Your task to perform on an android device: toggle airplane mode Image 0: 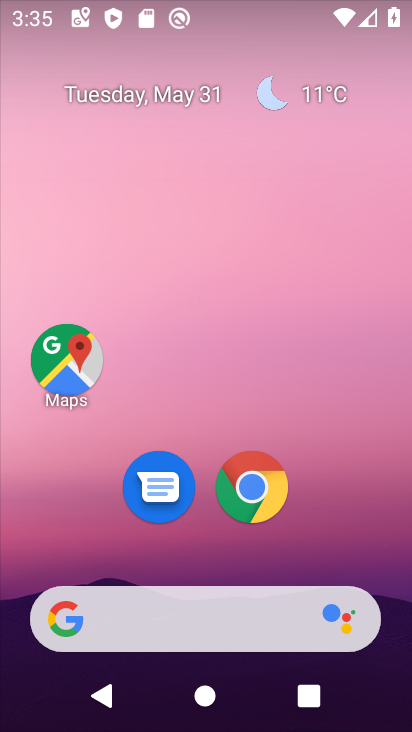
Step 0: drag from (326, 536) to (231, 75)
Your task to perform on an android device: toggle airplane mode Image 1: 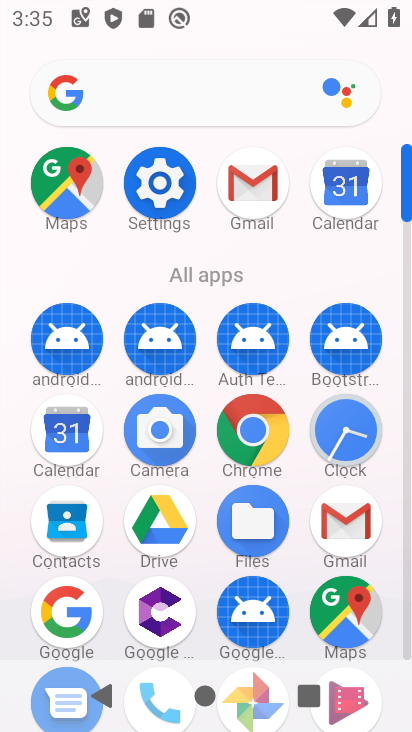
Step 1: click (159, 181)
Your task to perform on an android device: toggle airplane mode Image 2: 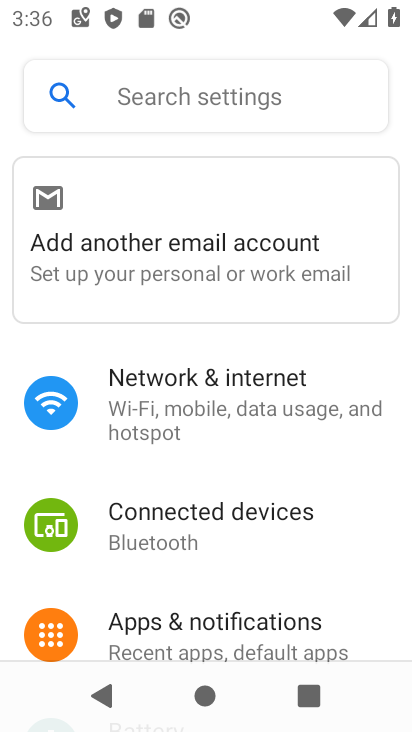
Step 2: click (216, 408)
Your task to perform on an android device: toggle airplane mode Image 3: 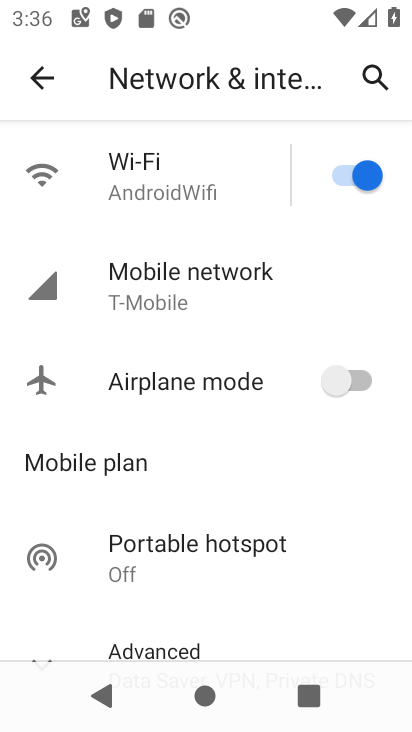
Step 3: click (347, 388)
Your task to perform on an android device: toggle airplane mode Image 4: 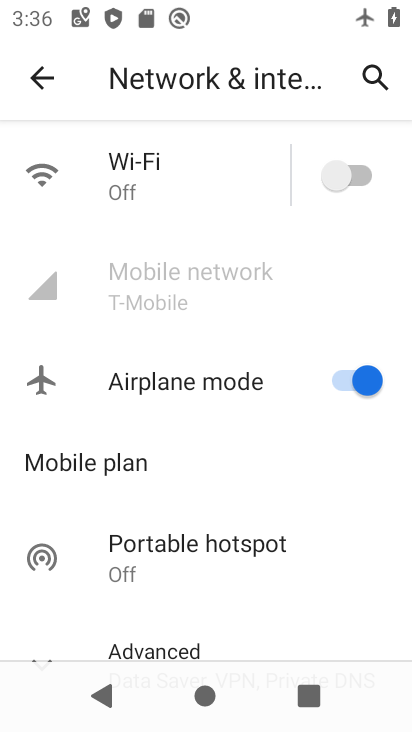
Step 4: task complete